Your task to perform on an android device: set an alarm Image 0: 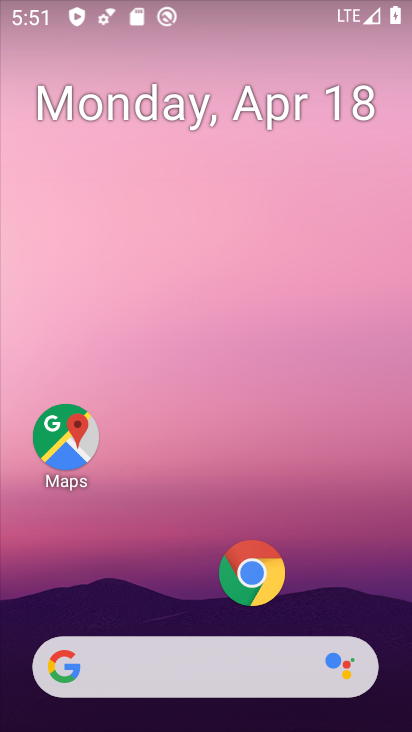
Step 0: drag from (191, 568) to (279, 0)
Your task to perform on an android device: set an alarm Image 1: 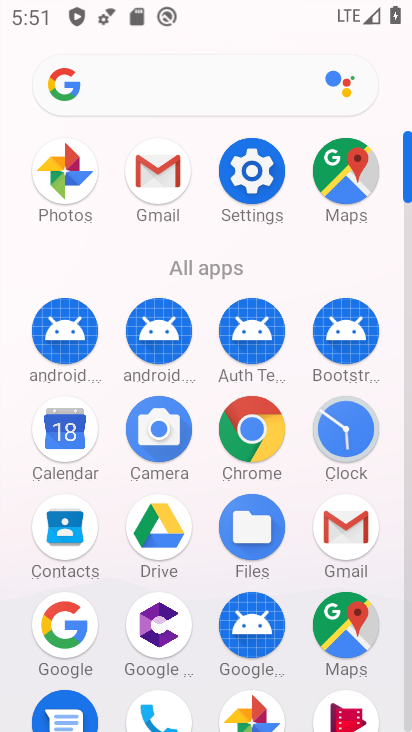
Step 1: click (345, 440)
Your task to perform on an android device: set an alarm Image 2: 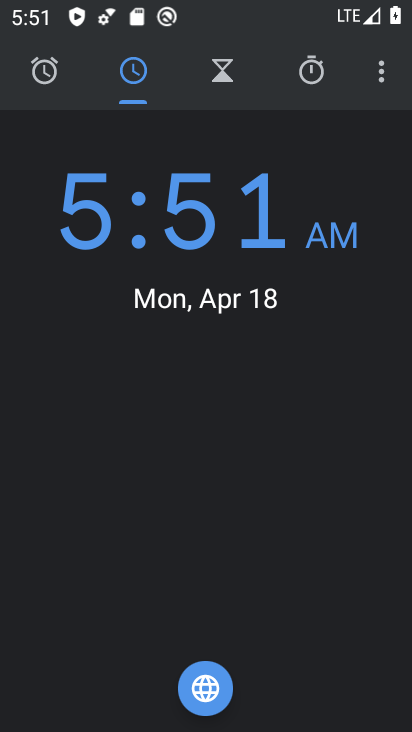
Step 2: click (45, 75)
Your task to perform on an android device: set an alarm Image 3: 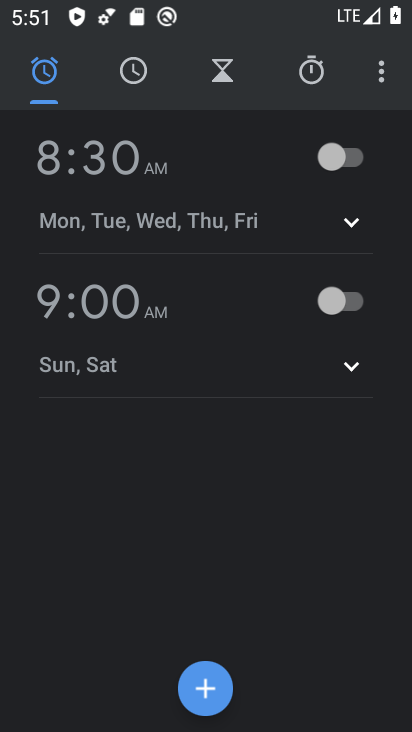
Step 3: click (356, 155)
Your task to perform on an android device: set an alarm Image 4: 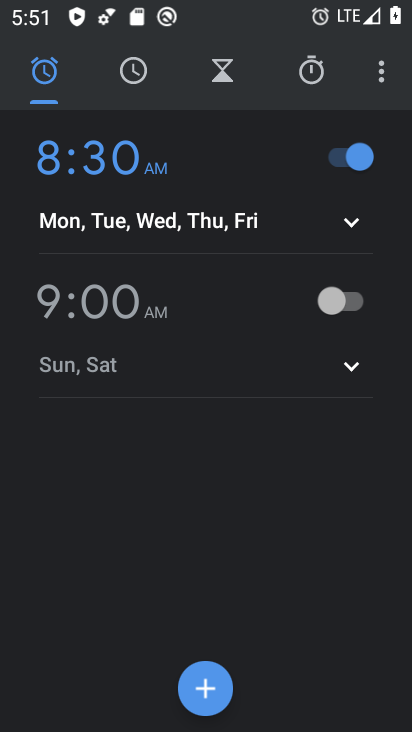
Step 4: task complete